Your task to perform on an android device: toggle translation in the chrome app Image 0: 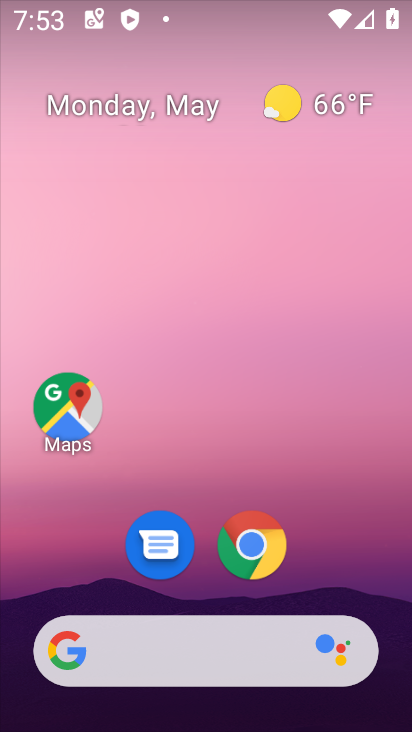
Step 0: click (273, 547)
Your task to perform on an android device: toggle translation in the chrome app Image 1: 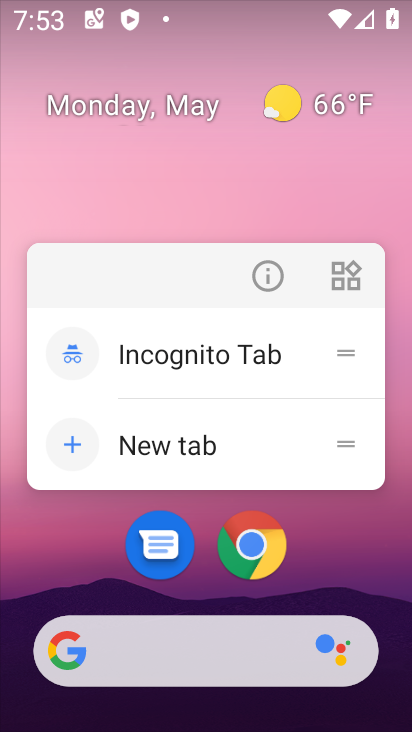
Step 1: click (265, 577)
Your task to perform on an android device: toggle translation in the chrome app Image 2: 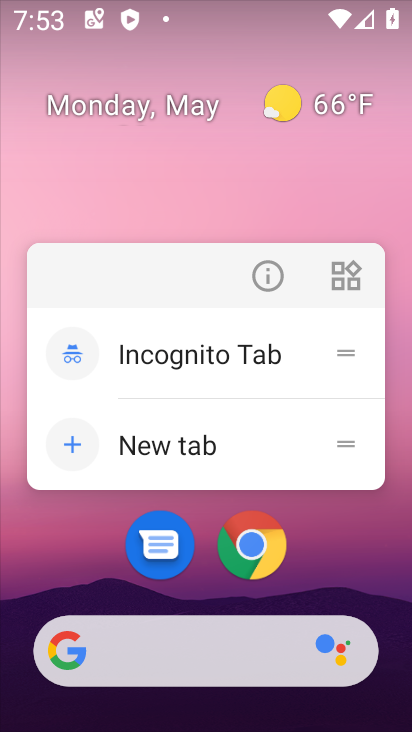
Step 2: click (265, 577)
Your task to perform on an android device: toggle translation in the chrome app Image 3: 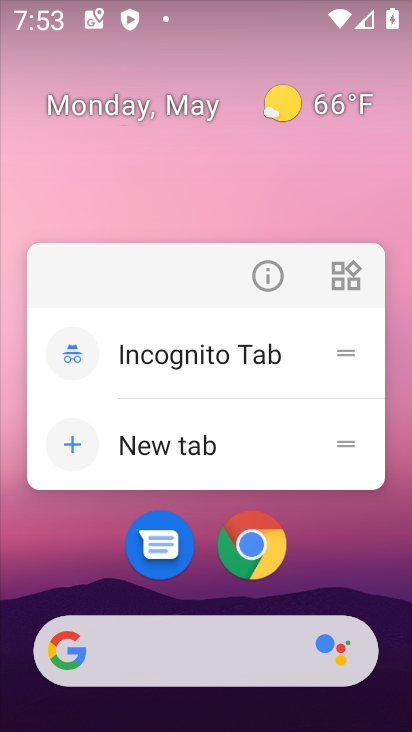
Step 3: click (265, 577)
Your task to perform on an android device: toggle translation in the chrome app Image 4: 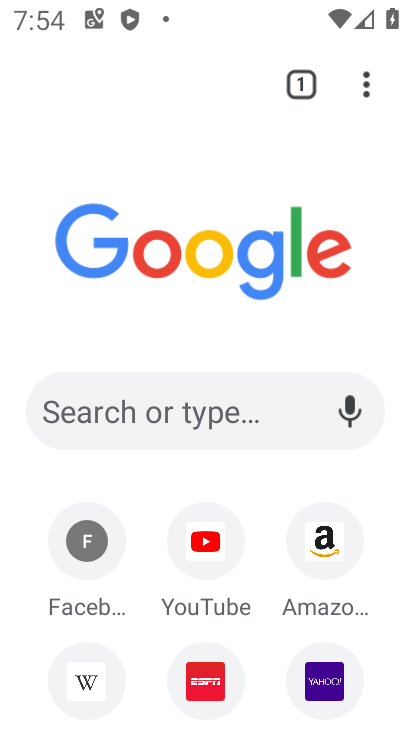
Step 4: drag from (364, 85) to (131, 601)
Your task to perform on an android device: toggle translation in the chrome app Image 5: 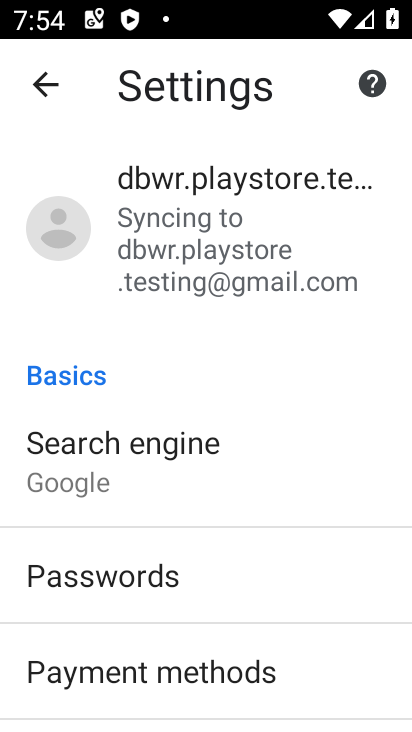
Step 5: drag from (189, 607) to (160, 35)
Your task to perform on an android device: toggle translation in the chrome app Image 6: 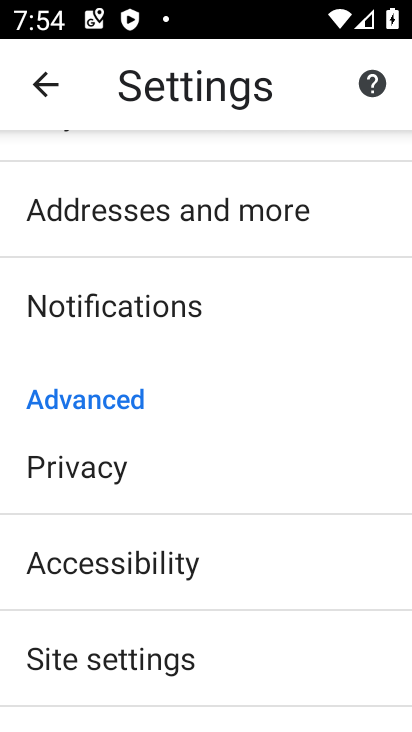
Step 6: drag from (177, 683) to (194, 172)
Your task to perform on an android device: toggle translation in the chrome app Image 7: 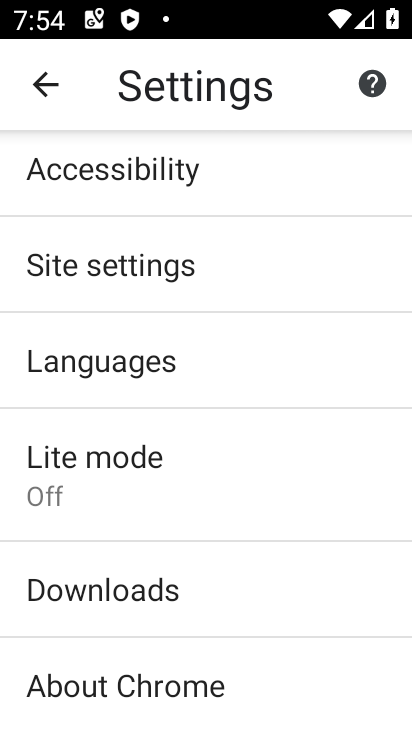
Step 7: click (166, 395)
Your task to perform on an android device: toggle translation in the chrome app Image 8: 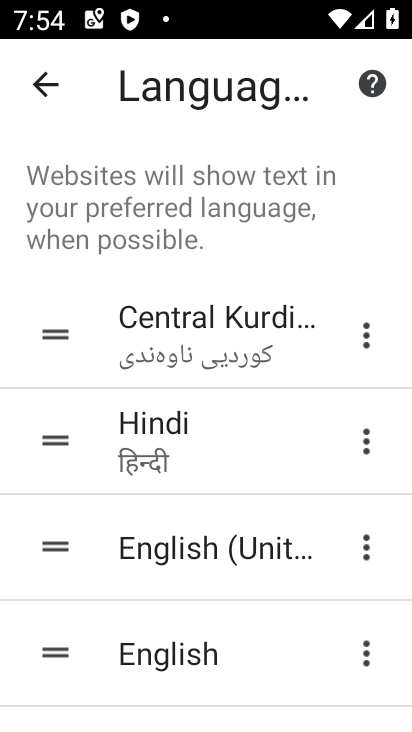
Step 8: drag from (196, 666) to (127, 64)
Your task to perform on an android device: toggle translation in the chrome app Image 9: 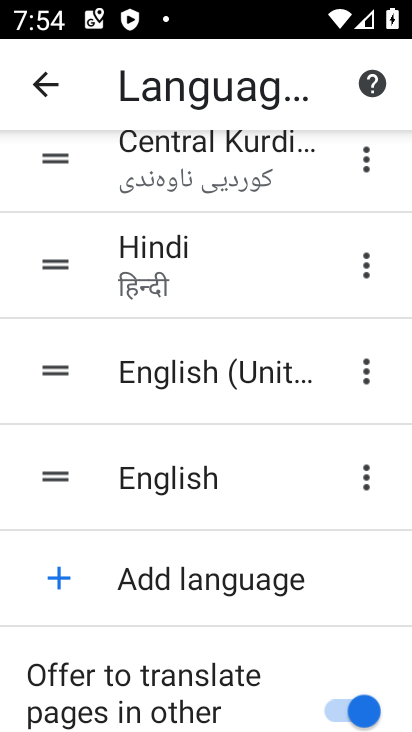
Step 9: click (348, 710)
Your task to perform on an android device: toggle translation in the chrome app Image 10: 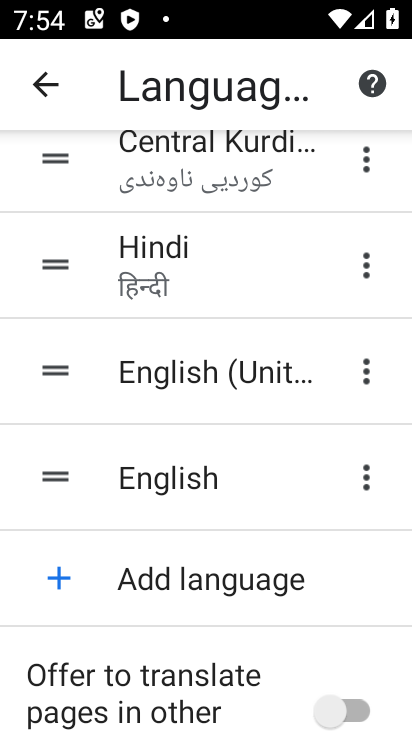
Step 10: task complete